Your task to perform on an android device: What's the weather today? Image 0: 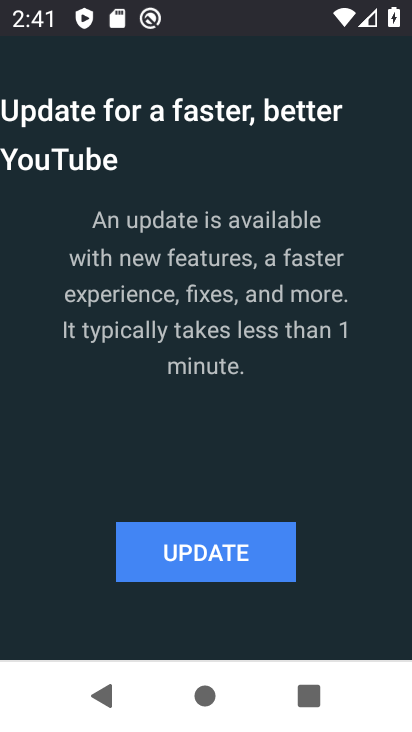
Step 0: press home button
Your task to perform on an android device: What's the weather today? Image 1: 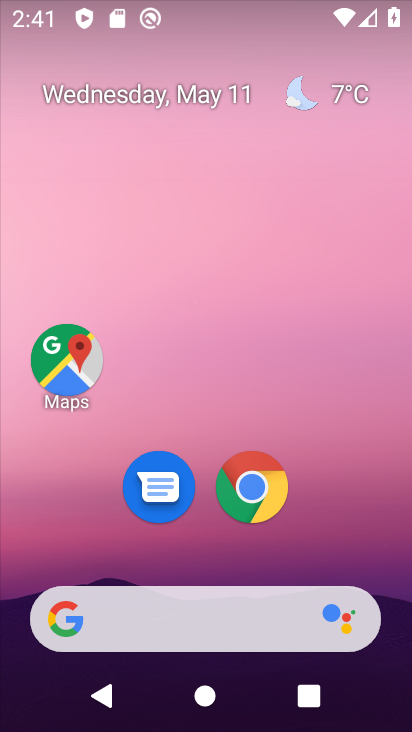
Step 1: drag from (244, 596) to (350, 15)
Your task to perform on an android device: What's the weather today? Image 2: 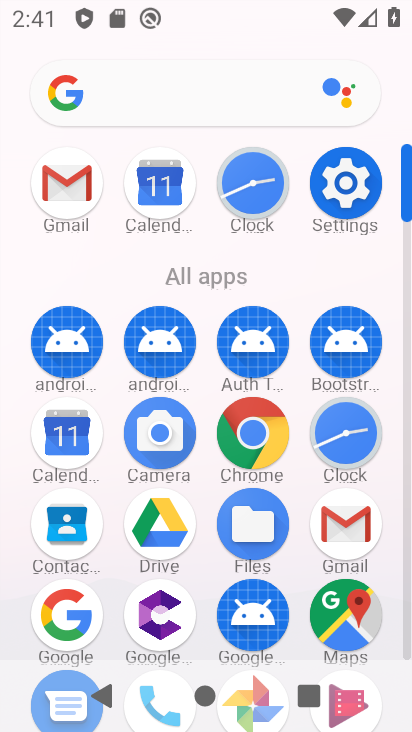
Step 2: click (267, 439)
Your task to perform on an android device: What's the weather today? Image 3: 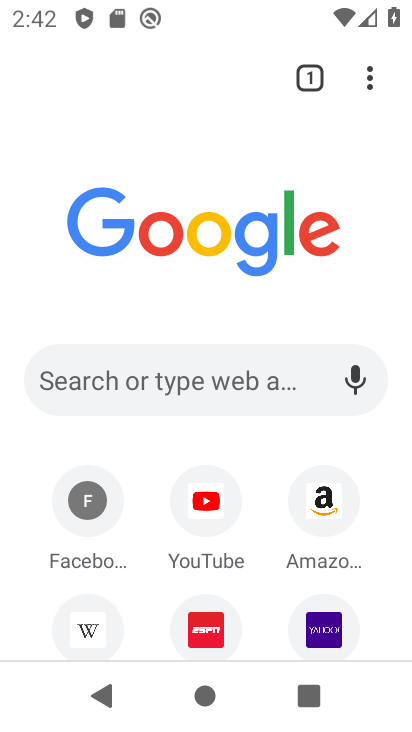
Step 3: click (244, 389)
Your task to perform on an android device: What's the weather today? Image 4: 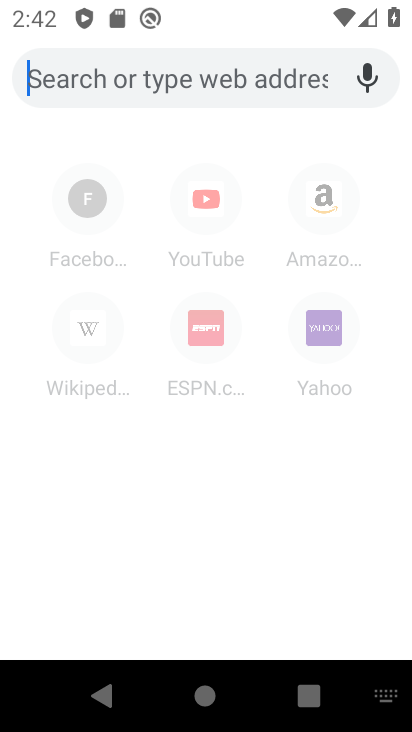
Step 4: type "weather today"
Your task to perform on an android device: What's the weather today? Image 5: 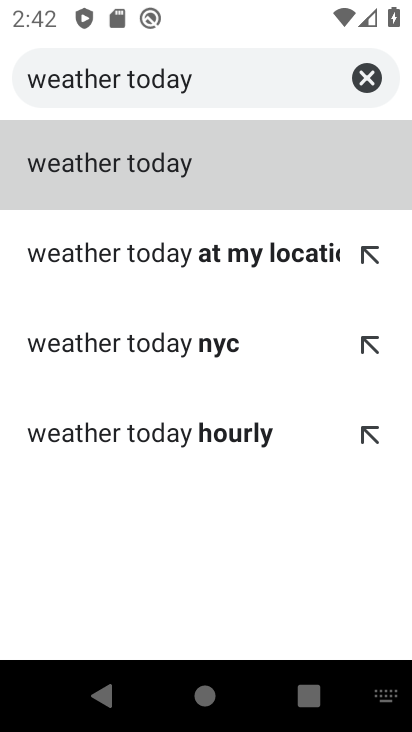
Step 5: click (140, 171)
Your task to perform on an android device: What's the weather today? Image 6: 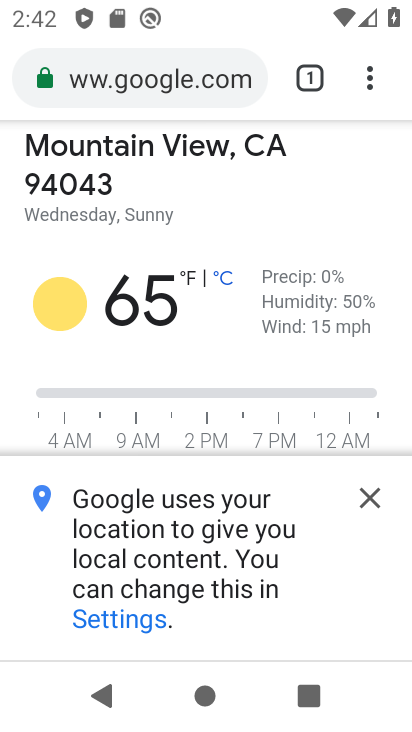
Step 6: task complete